Your task to perform on an android device: Go to sound settings Image 0: 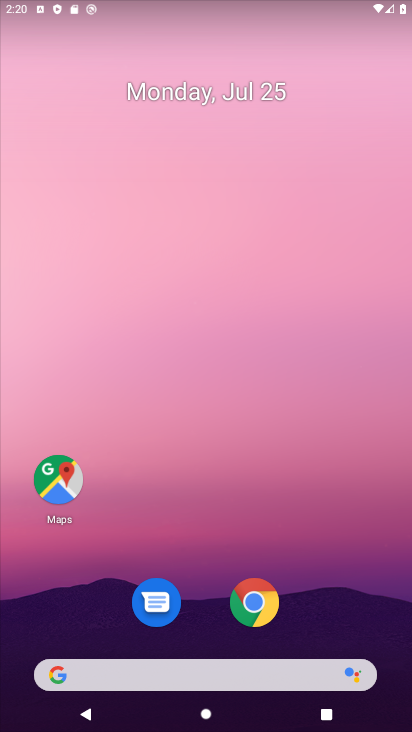
Step 0: drag from (296, 549) to (345, 199)
Your task to perform on an android device: Go to sound settings Image 1: 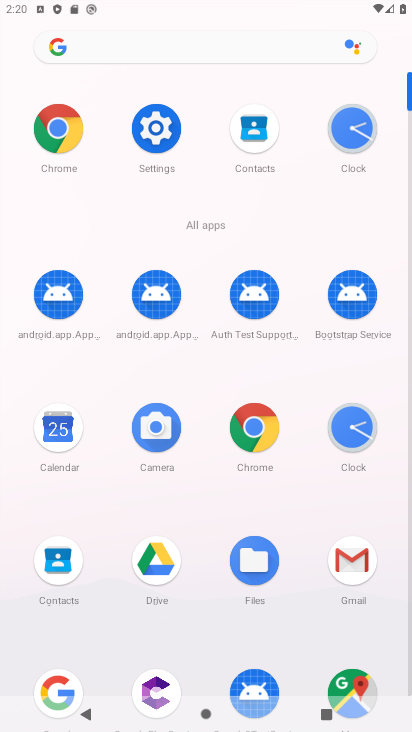
Step 1: click (147, 143)
Your task to perform on an android device: Go to sound settings Image 2: 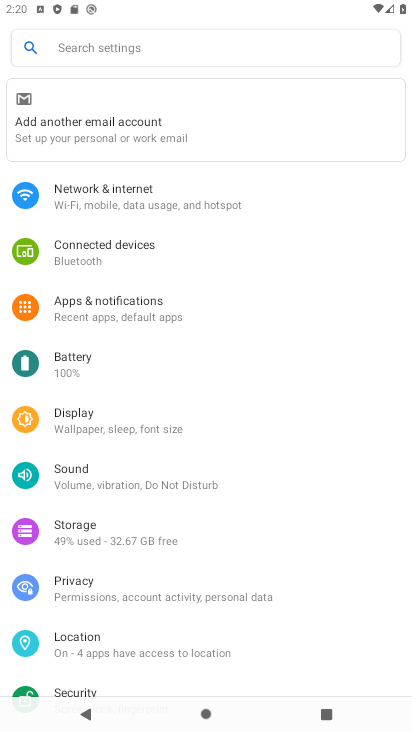
Step 2: click (60, 471)
Your task to perform on an android device: Go to sound settings Image 3: 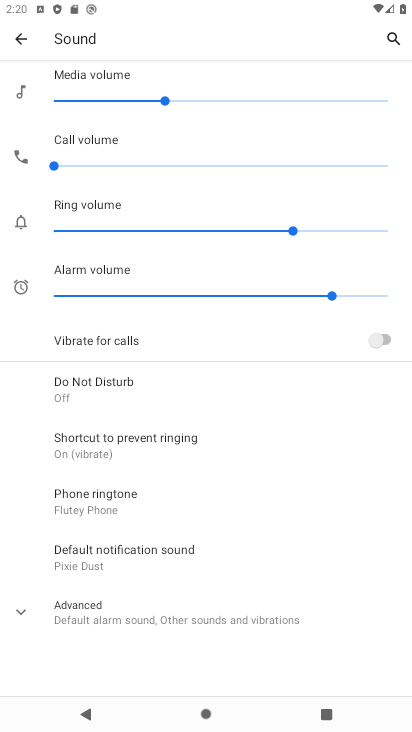
Step 3: task complete